Your task to perform on an android device: Open eBay Image 0: 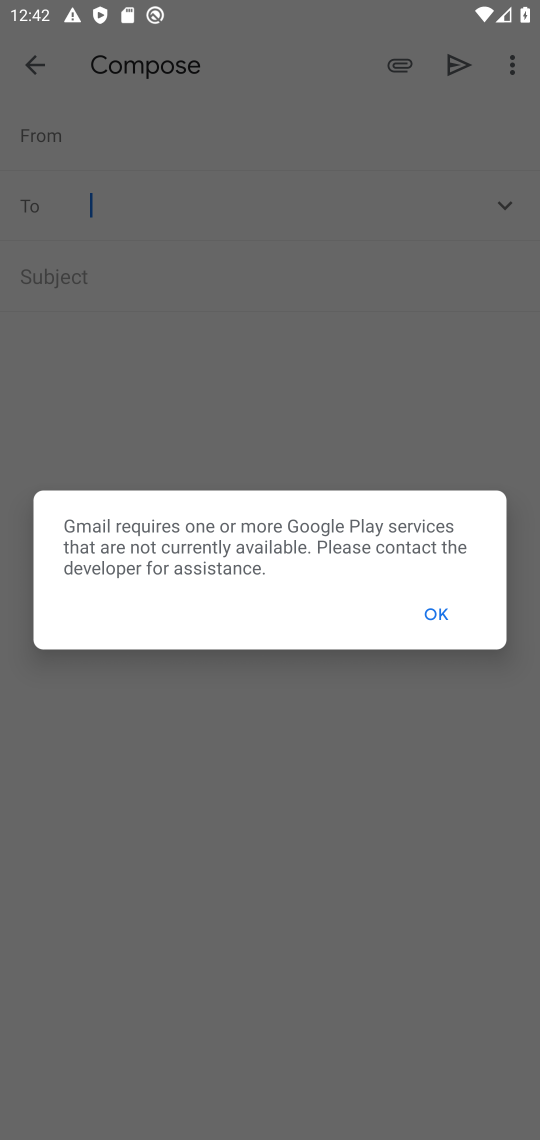
Step 0: drag from (219, 948) to (253, 596)
Your task to perform on an android device: Open eBay Image 1: 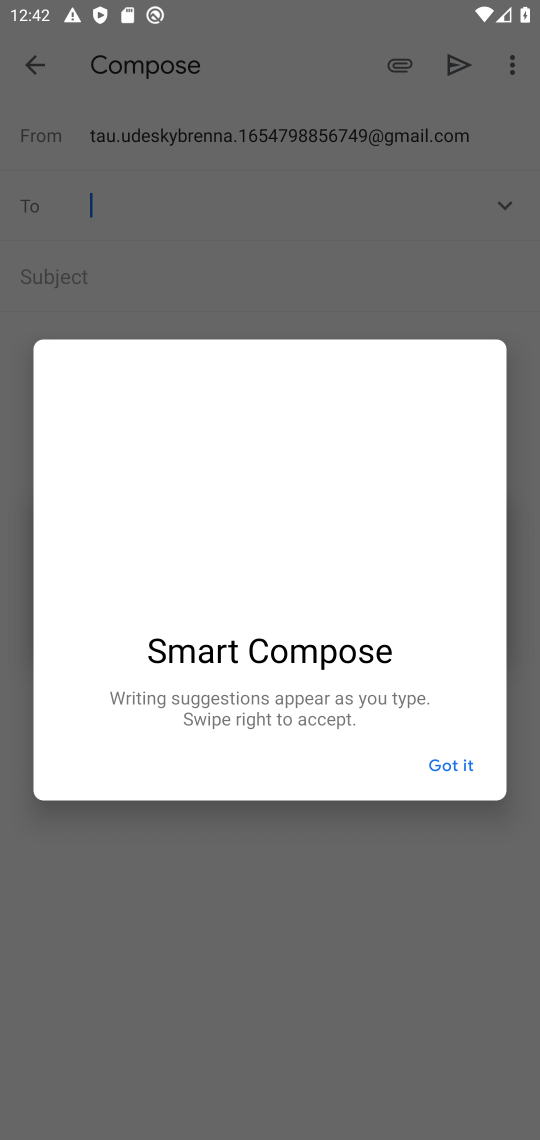
Step 1: press home button
Your task to perform on an android device: Open eBay Image 2: 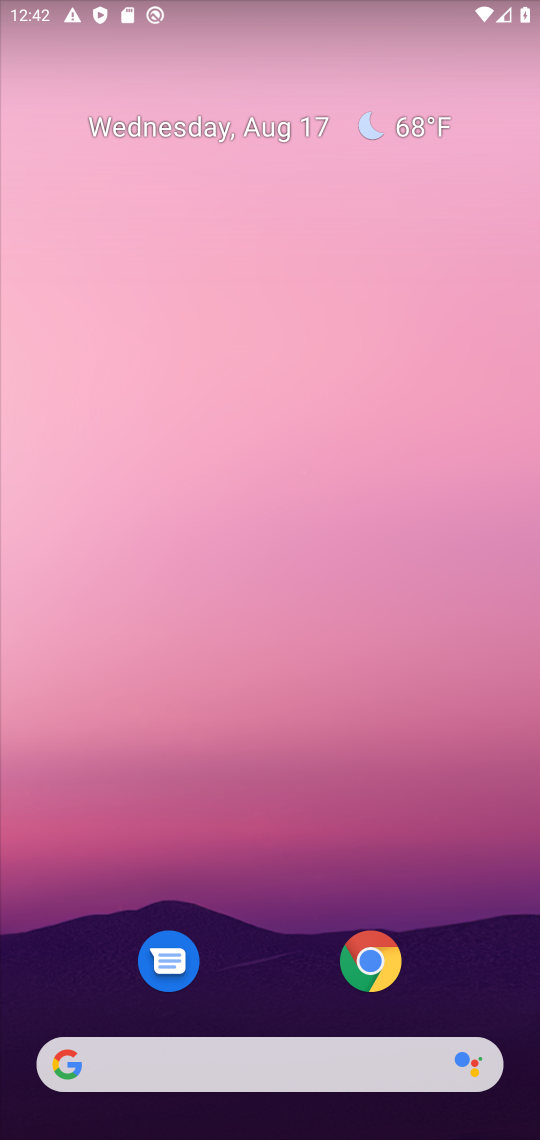
Step 2: drag from (342, 1051) to (379, 309)
Your task to perform on an android device: Open eBay Image 3: 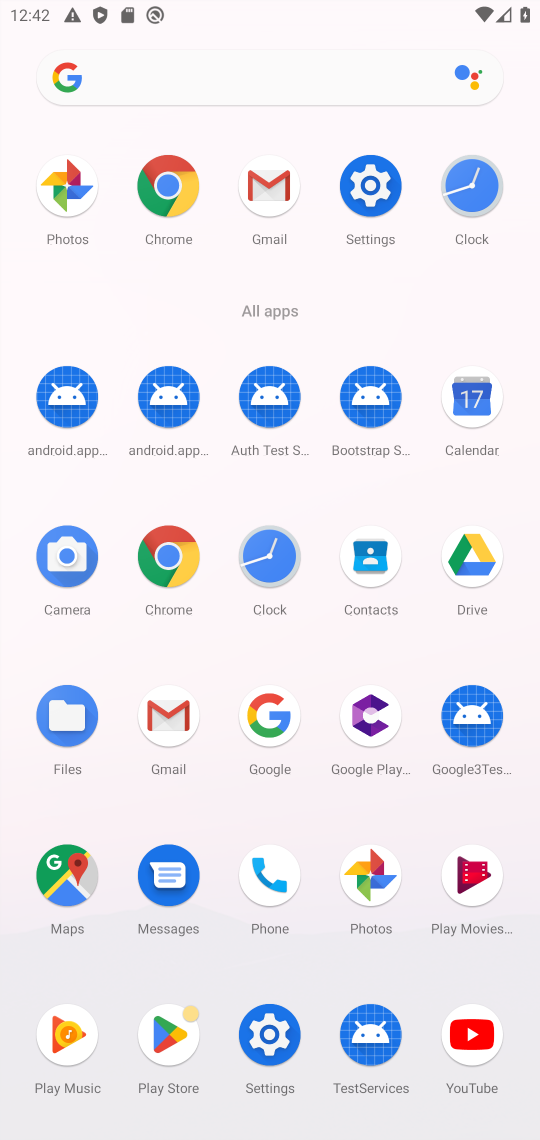
Step 3: click (170, 556)
Your task to perform on an android device: Open eBay Image 4: 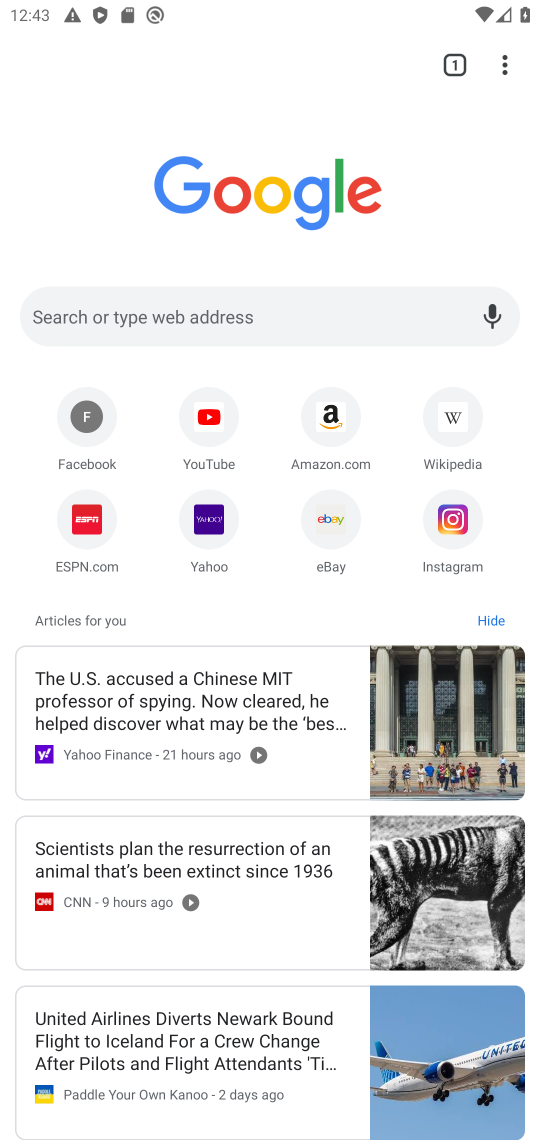
Step 4: click (336, 526)
Your task to perform on an android device: Open eBay Image 5: 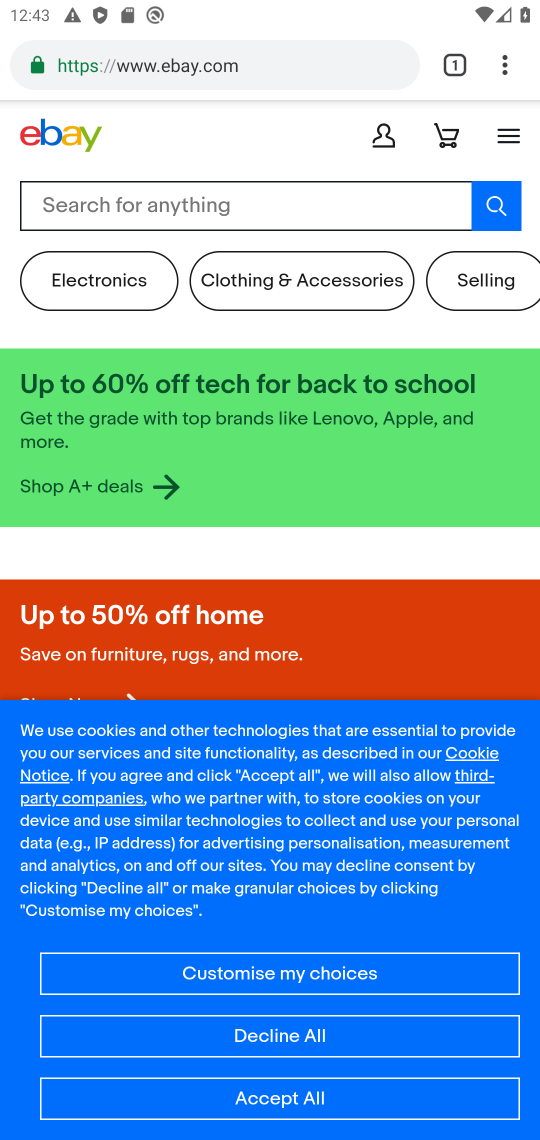
Step 5: task complete